Your task to perform on an android device: toggle notification dots Image 0: 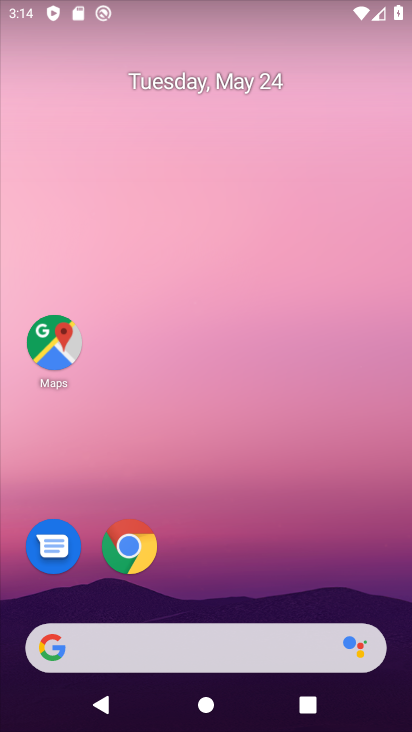
Step 0: drag from (299, 372) to (298, 323)
Your task to perform on an android device: toggle notification dots Image 1: 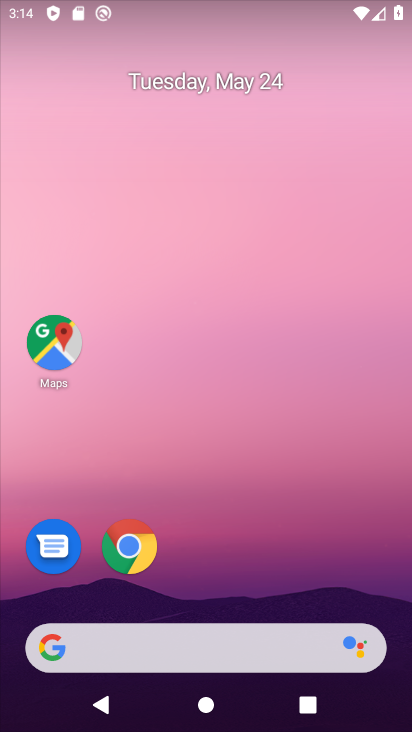
Step 1: drag from (280, 624) to (253, 307)
Your task to perform on an android device: toggle notification dots Image 2: 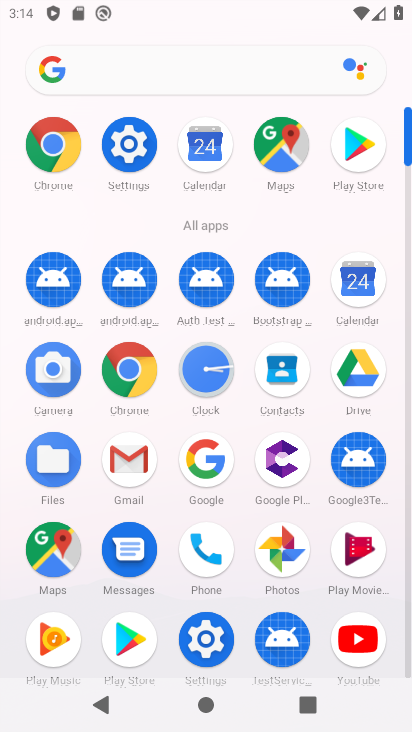
Step 2: click (131, 160)
Your task to perform on an android device: toggle notification dots Image 3: 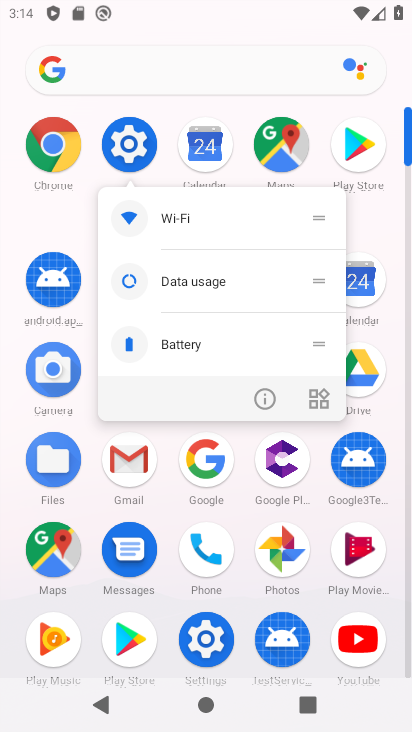
Step 3: click (130, 146)
Your task to perform on an android device: toggle notification dots Image 4: 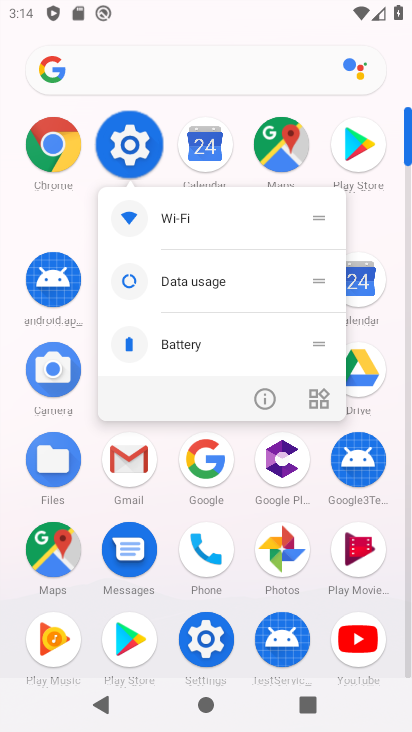
Step 4: click (130, 150)
Your task to perform on an android device: toggle notification dots Image 5: 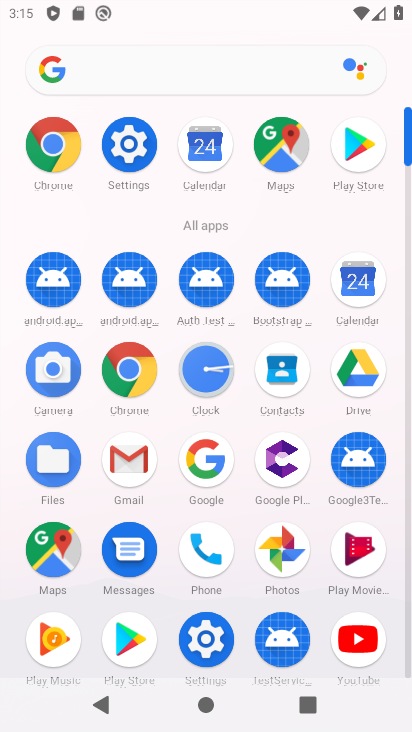
Step 5: click (120, 138)
Your task to perform on an android device: toggle notification dots Image 6: 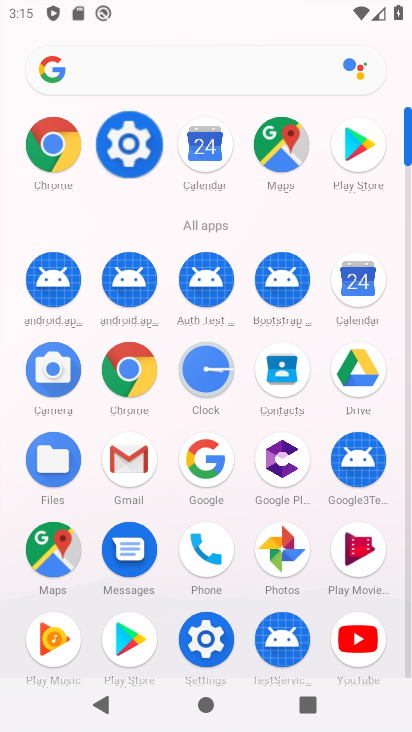
Step 6: click (125, 139)
Your task to perform on an android device: toggle notification dots Image 7: 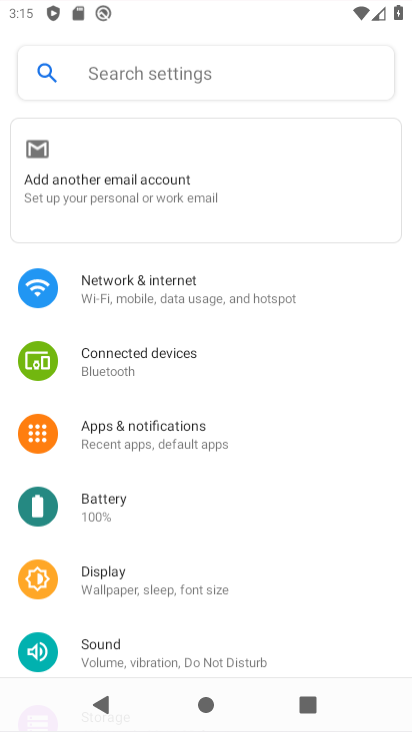
Step 7: click (132, 143)
Your task to perform on an android device: toggle notification dots Image 8: 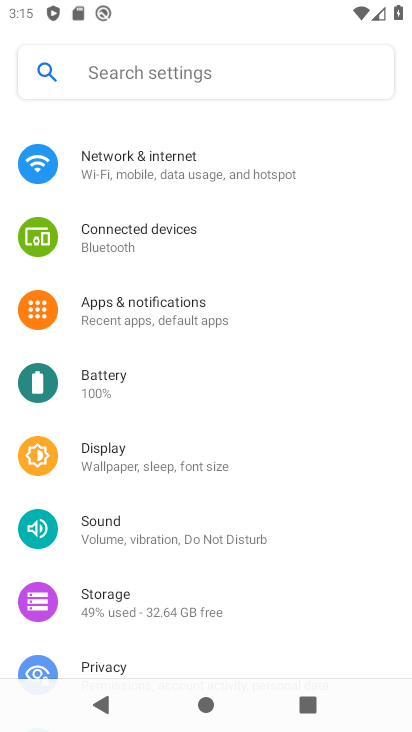
Step 8: click (132, 143)
Your task to perform on an android device: toggle notification dots Image 9: 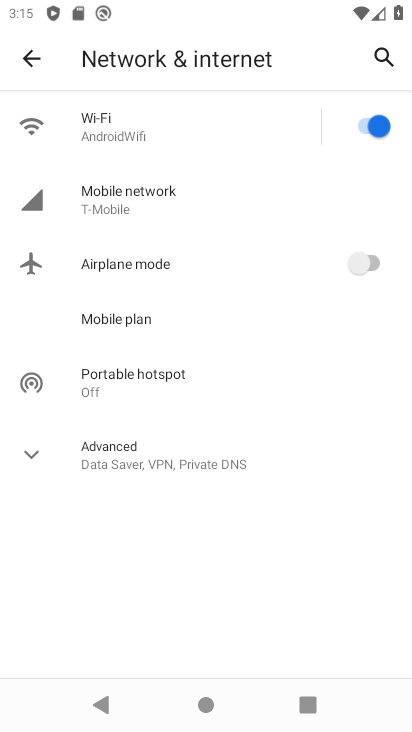
Step 9: click (28, 68)
Your task to perform on an android device: toggle notification dots Image 10: 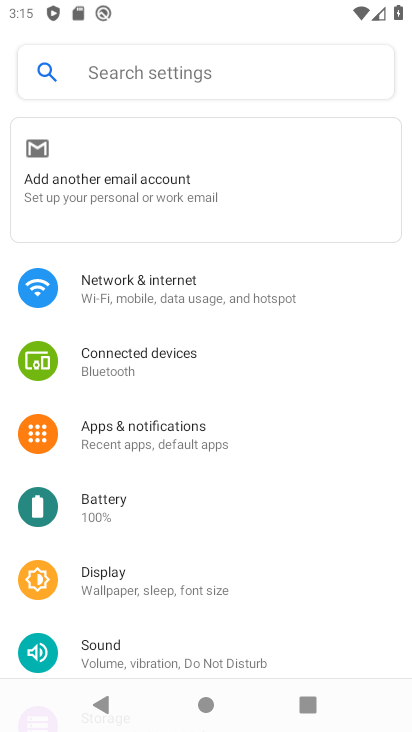
Step 10: click (146, 422)
Your task to perform on an android device: toggle notification dots Image 11: 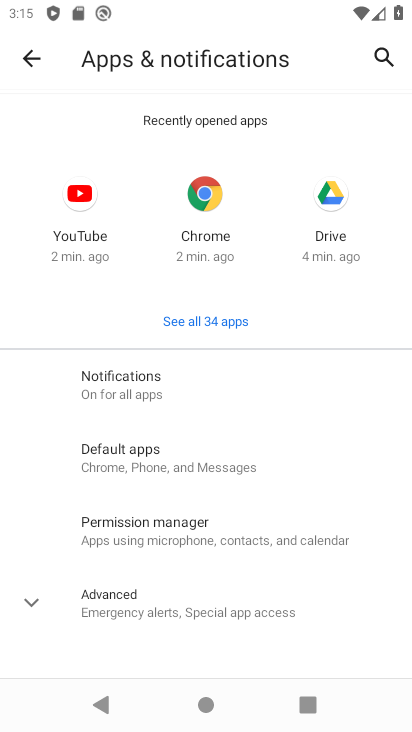
Step 11: click (112, 382)
Your task to perform on an android device: toggle notification dots Image 12: 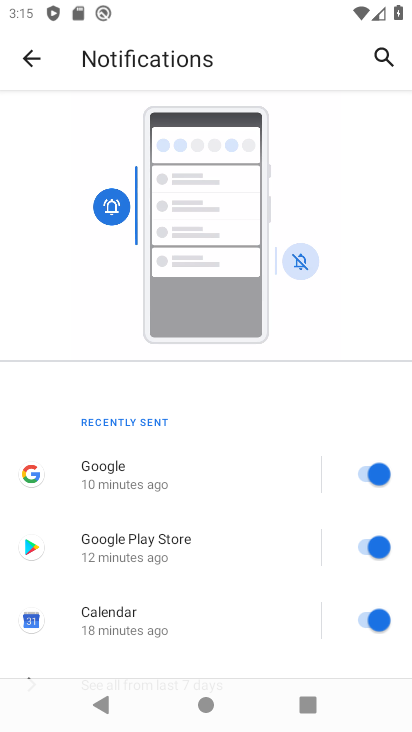
Step 12: drag from (186, 583) to (192, 247)
Your task to perform on an android device: toggle notification dots Image 13: 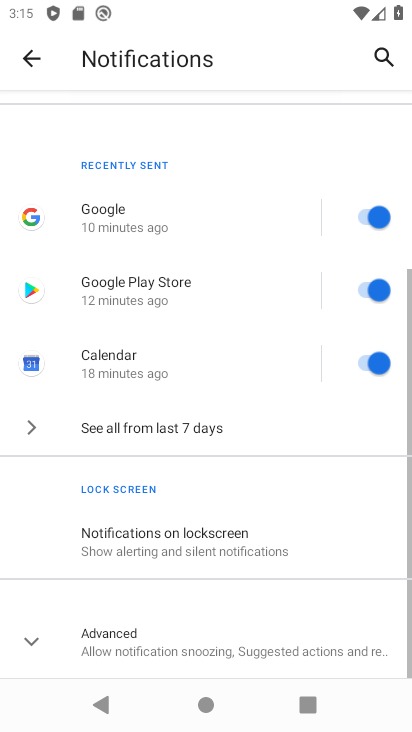
Step 13: drag from (304, 619) to (222, 248)
Your task to perform on an android device: toggle notification dots Image 14: 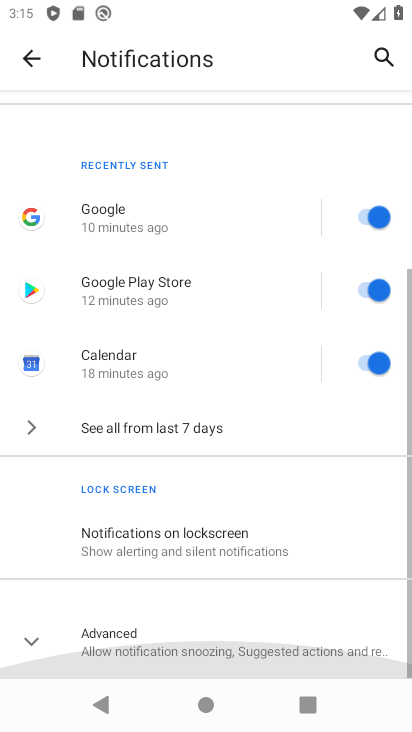
Step 14: drag from (209, 553) to (213, 200)
Your task to perform on an android device: toggle notification dots Image 15: 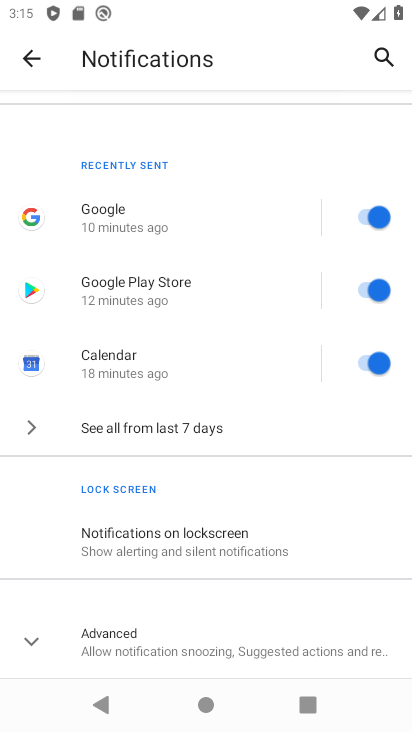
Step 15: click (125, 639)
Your task to perform on an android device: toggle notification dots Image 16: 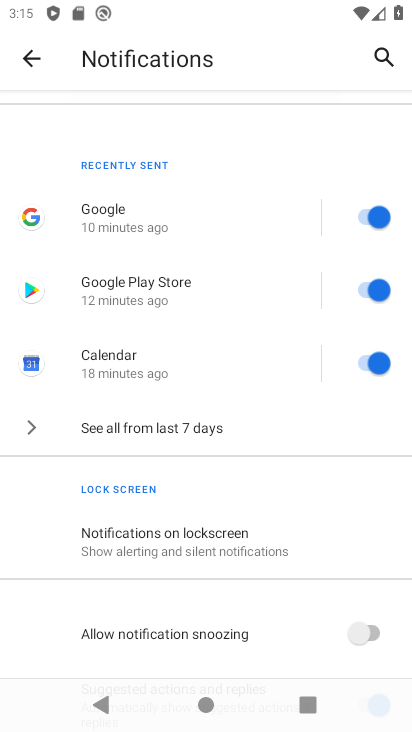
Step 16: drag from (130, 482) to (164, 316)
Your task to perform on an android device: toggle notification dots Image 17: 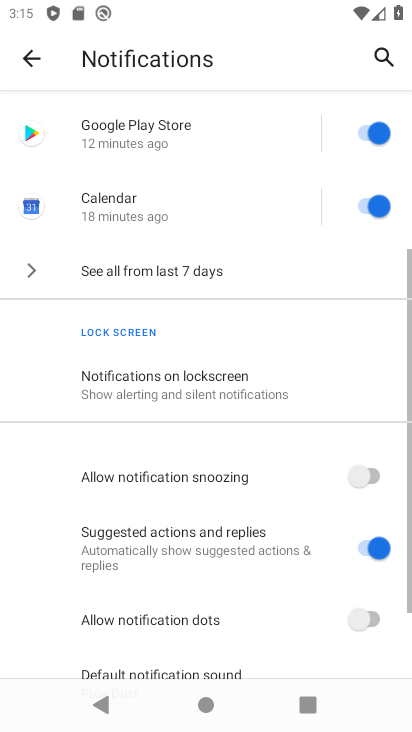
Step 17: drag from (212, 462) to (273, 193)
Your task to perform on an android device: toggle notification dots Image 18: 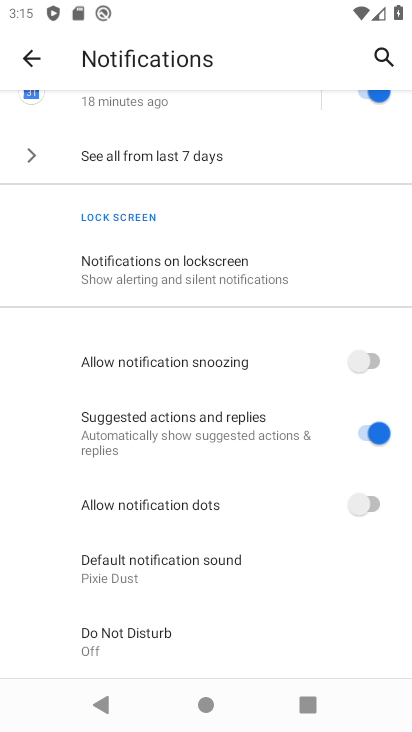
Step 18: click (364, 497)
Your task to perform on an android device: toggle notification dots Image 19: 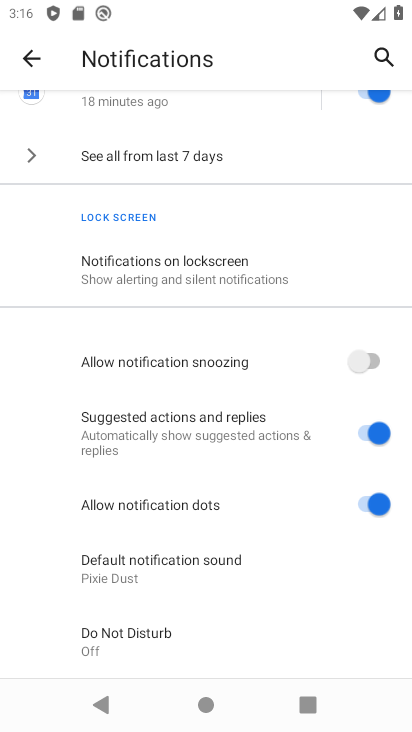
Step 19: task complete